Your task to perform on an android device: Search for Mexican restaurants on Maps Image 0: 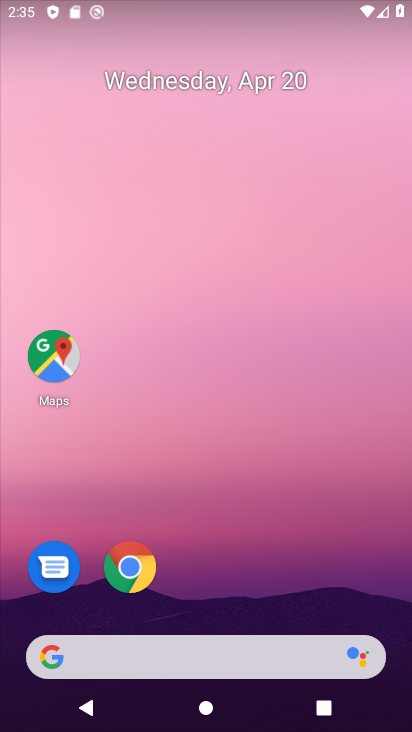
Step 0: click (59, 352)
Your task to perform on an android device: Search for Mexican restaurants on Maps Image 1: 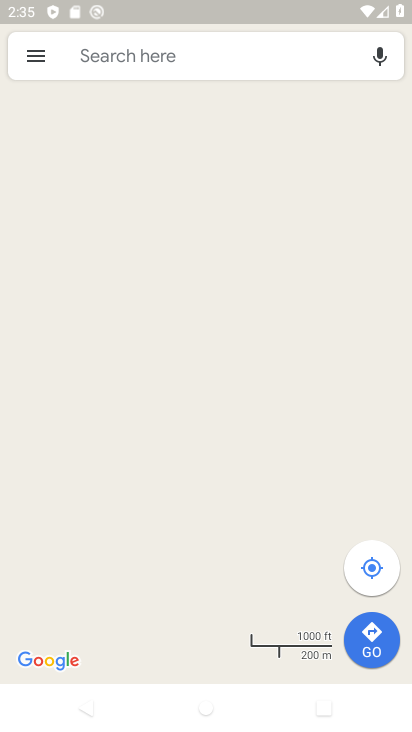
Step 1: click (177, 48)
Your task to perform on an android device: Search for Mexican restaurants on Maps Image 2: 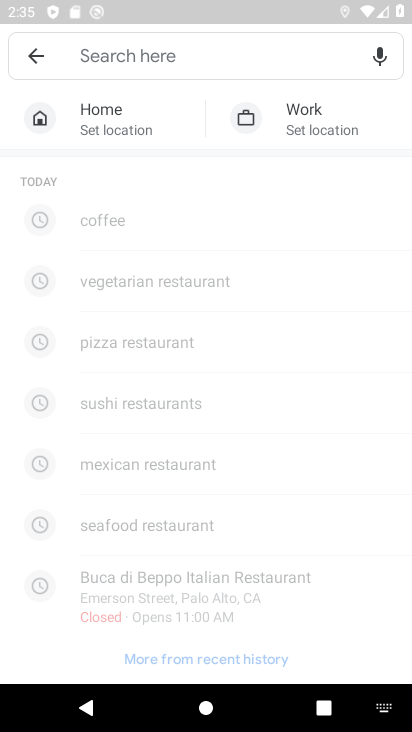
Step 2: type "mexican restaurants"
Your task to perform on an android device: Search for Mexican restaurants on Maps Image 3: 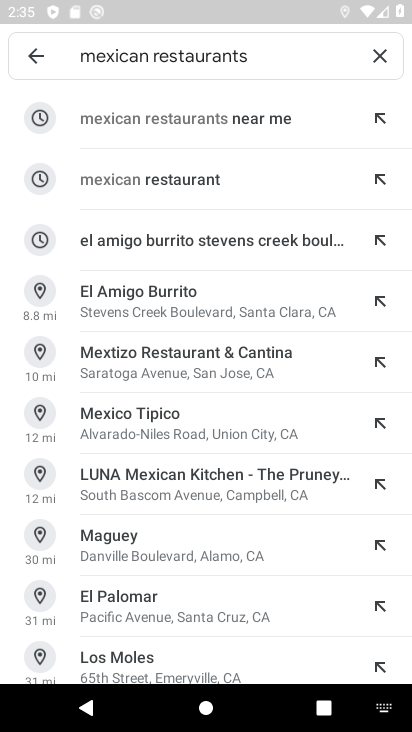
Step 3: click (170, 176)
Your task to perform on an android device: Search for Mexican restaurants on Maps Image 4: 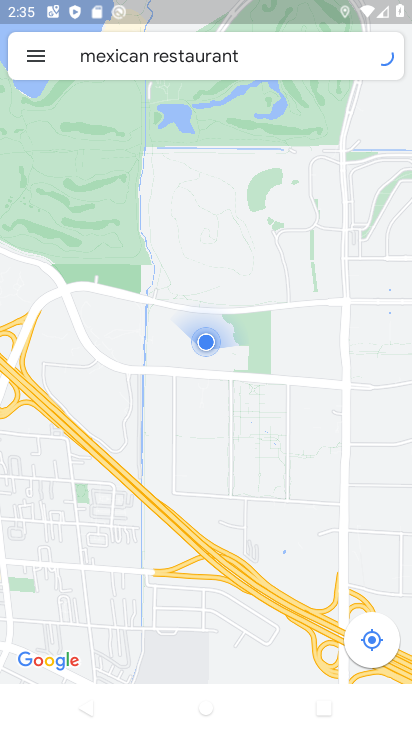
Step 4: task complete